Your task to perform on an android device: toggle data saver in the chrome app Image 0: 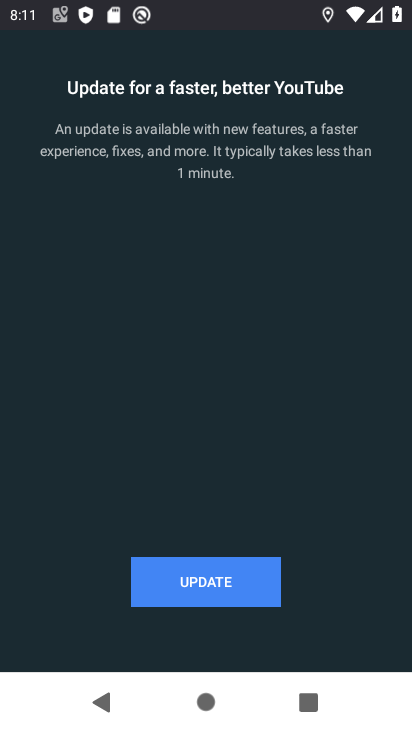
Step 0: press home button
Your task to perform on an android device: toggle data saver in the chrome app Image 1: 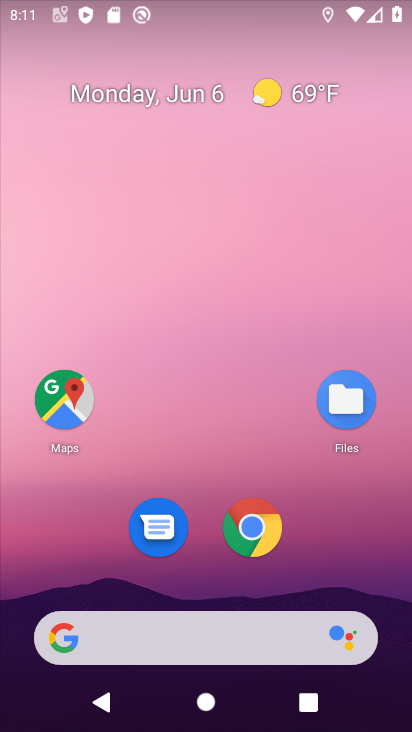
Step 1: click (247, 524)
Your task to perform on an android device: toggle data saver in the chrome app Image 2: 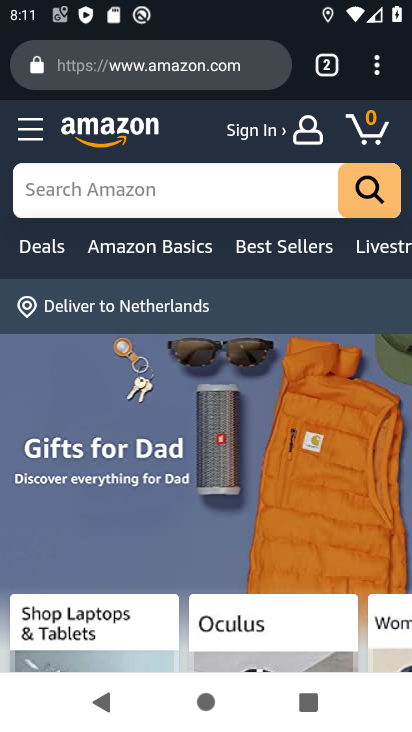
Step 2: click (372, 62)
Your task to perform on an android device: toggle data saver in the chrome app Image 3: 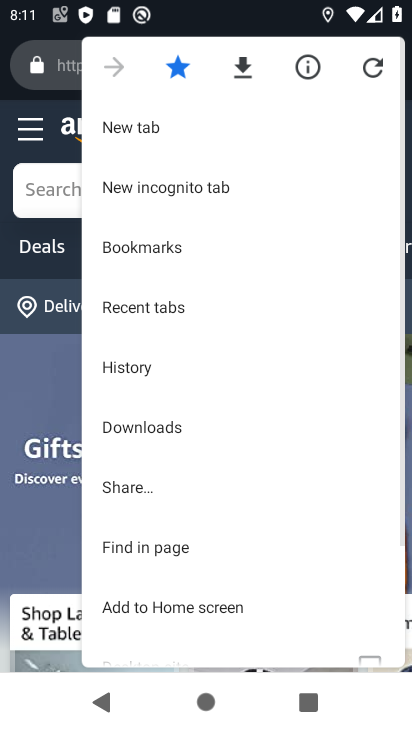
Step 3: drag from (150, 559) to (188, 231)
Your task to perform on an android device: toggle data saver in the chrome app Image 4: 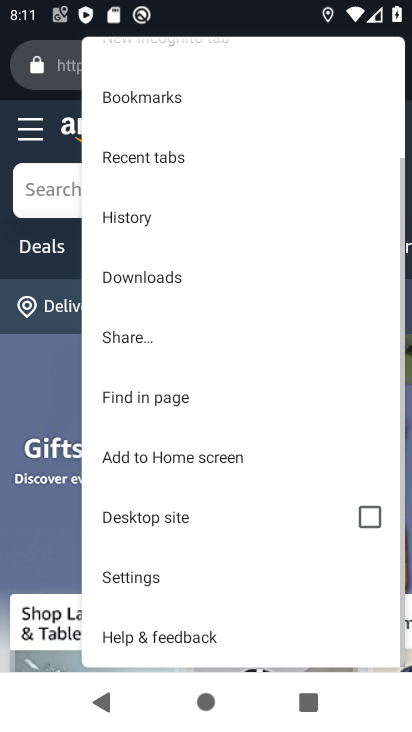
Step 4: click (145, 590)
Your task to perform on an android device: toggle data saver in the chrome app Image 5: 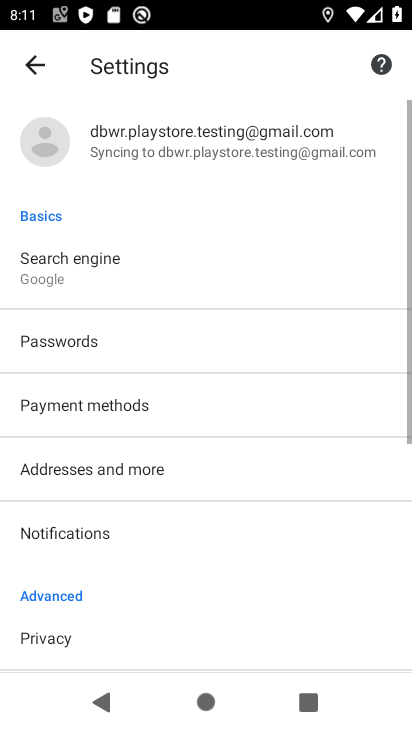
Step 5: drag from (147, 603) to (102, 303)
Your task to perform on an android device: toggle data saver in the chrome app Image 6: 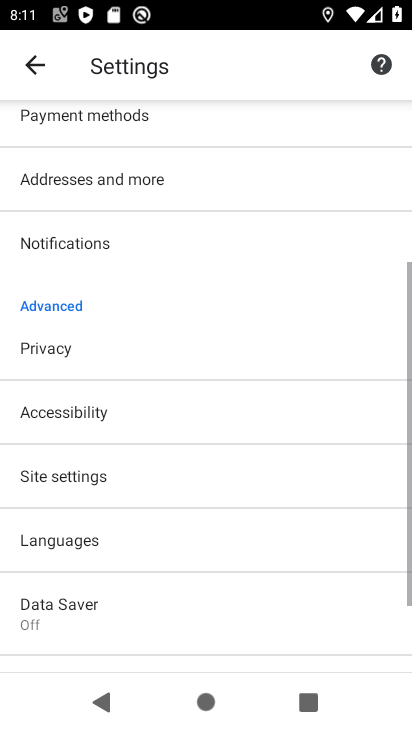
Step 6: click (89, 479)
Your task to perform on an android device: toggle data saver in the chrome app Image 7: 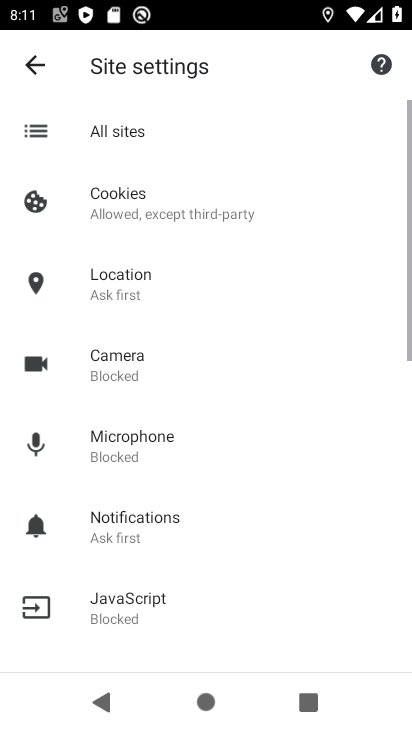
Step 7: drag from (165, 555) to (144, 308)
Your task to perform on an android device: toggle data saver in the chrome app Image 8: 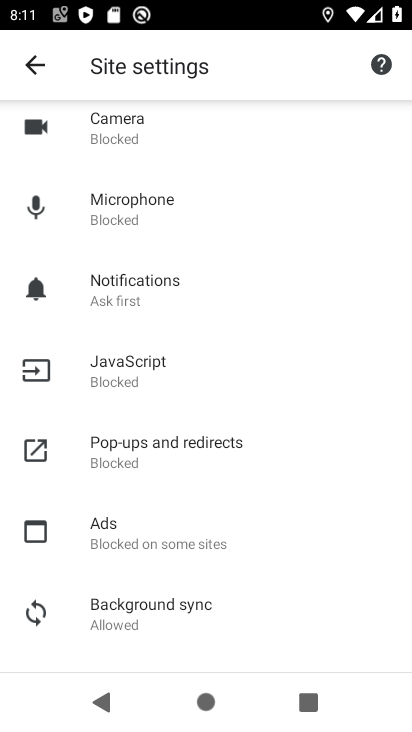
Step 8: drag from (181, 624) to (168, 332)
Your task to perform on an android device: toggle data saver in the chrome app Image 9: 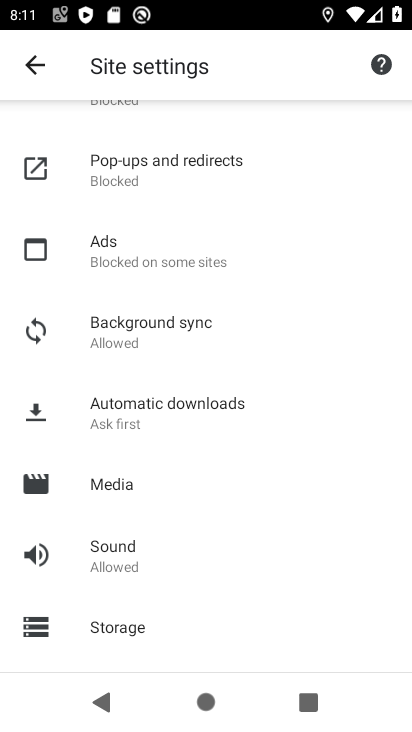
Step 9: press back button
Your task to perform on an android device: toggle data saver in the chrome app Image 10: 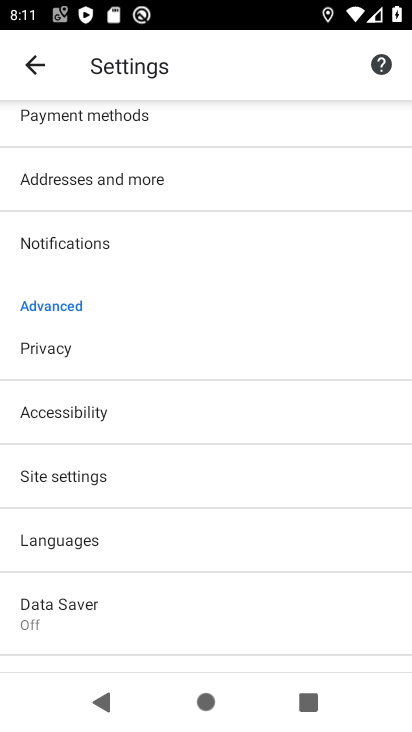
Step 10: click (72, 613)
Your task to perform on an android device: toggle data saver in the chrome app Image 11: 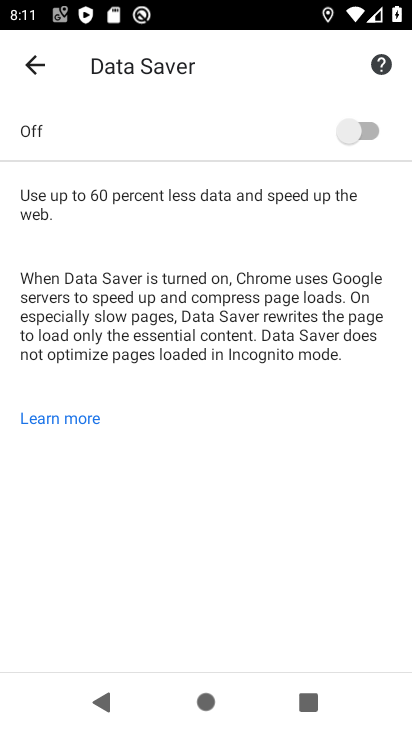
Step 11: task complete